Your task to perform on an android device: What's on my calendar tomorrow? Image 0: 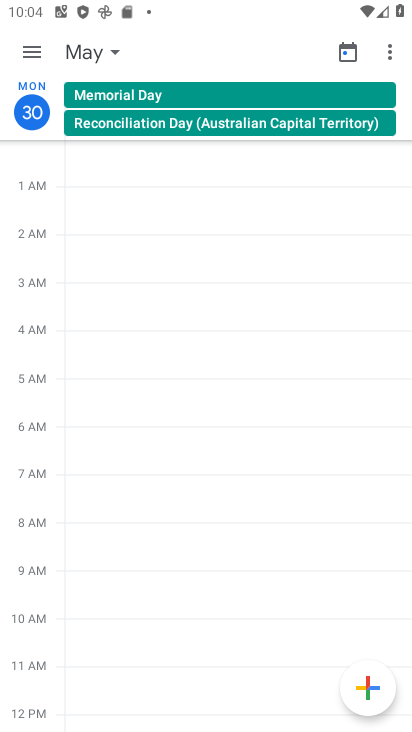
Step 0: press home button
Your task to perform on an android device: What's on my calendar tomorrow? Image 1: 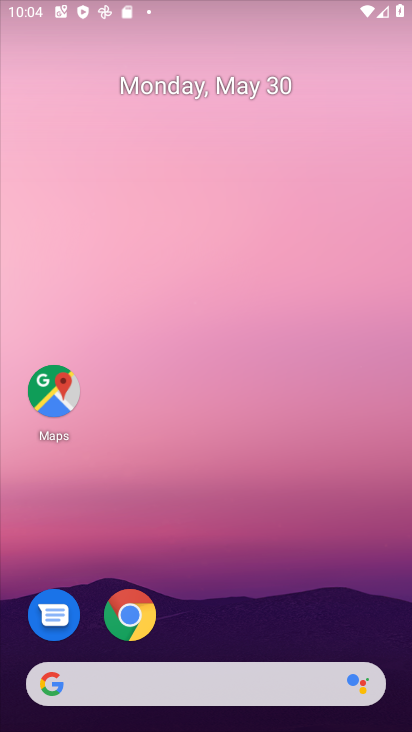
Step 1: drag from (290, 526) to (237, 34)
Your task to perform on an android device: What's on my calendar tomorrow? Image 2: 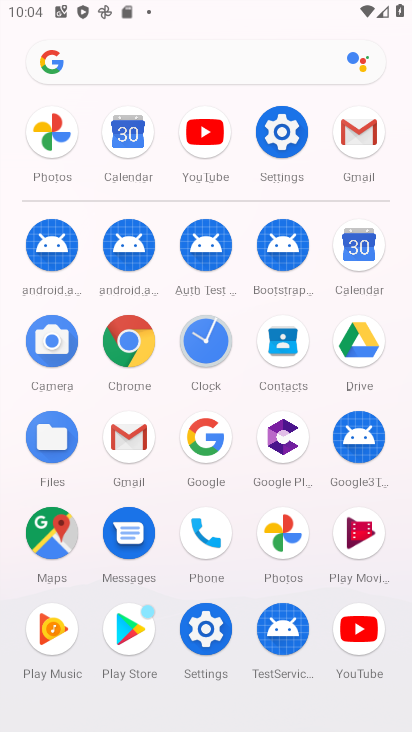
Step 2: click (357, 243)
Your task to perform on an android device: What's on my calendar tomorrow? Image 3: 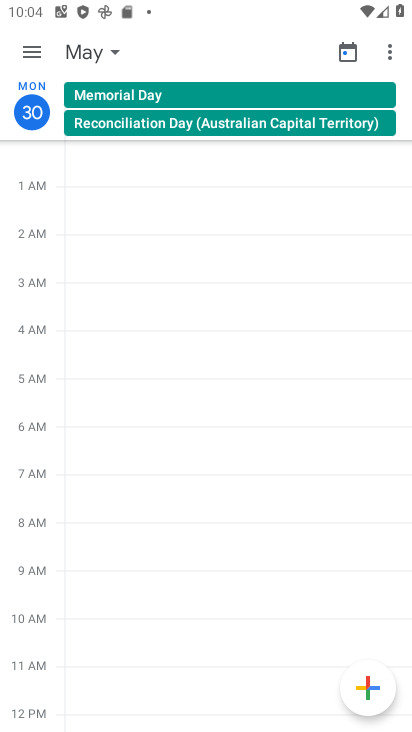
Step 3: click (110, 44)
Your task to perform on an android device: What's on my calendar tomorrow? Image 4: 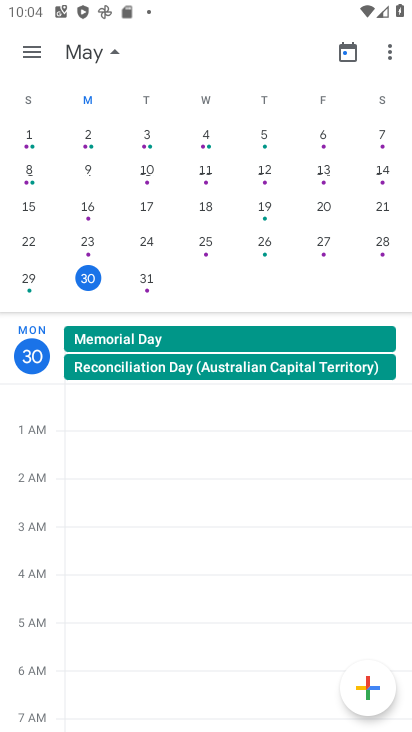
Step 4: click (146, 276)
Your task to perform on an android device: What's on my calendar tomorrow? Image 5: 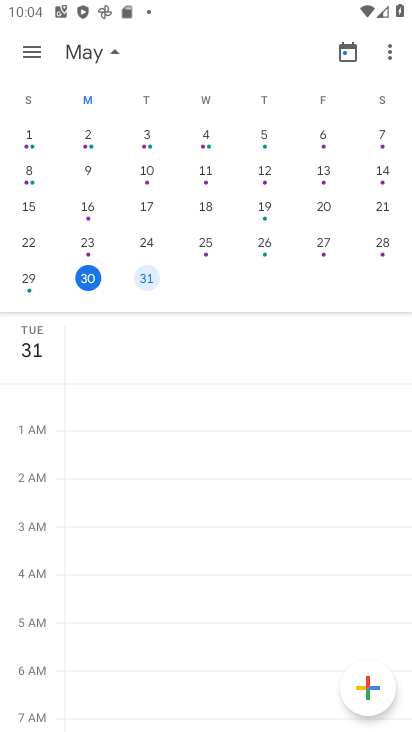
Step 5: task complete